Your task to perform on an android device: Open the calendar app, open the side menu, and click the "Day" option Image 0: 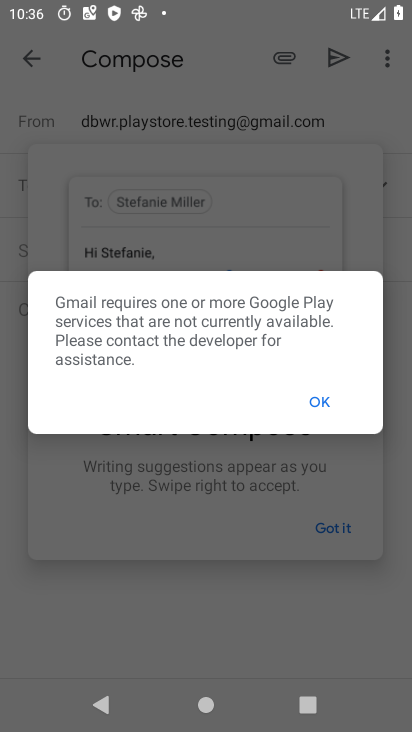
Step 0: press home button
Your task to perform on an android device: Open the calendar app, open the side menu, and click the "Day" option Image 1: 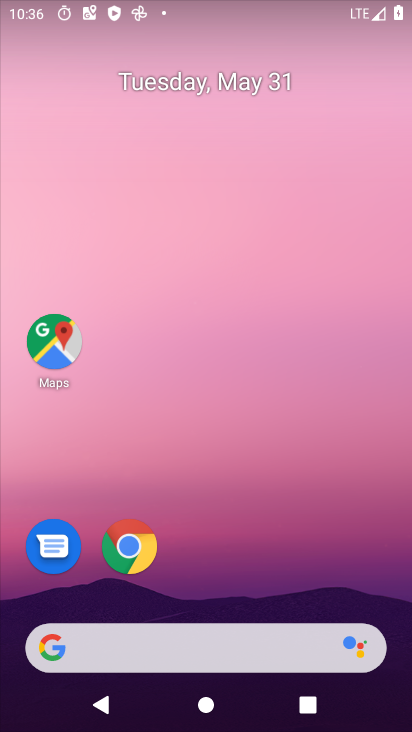
Step 1: drag from (228, 519) to (248, 148)
Your task to perform on an android device: Open the calendar app, open the side menu, and click the "Day" option Image 2: 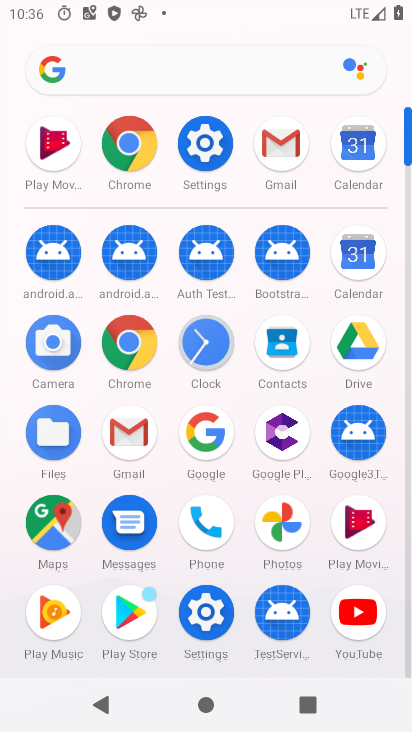
Step 2: click (354, 133)
Your task to perform on an android device: Open the calendar app, open the side menu, and click the "Day" option Image 3: 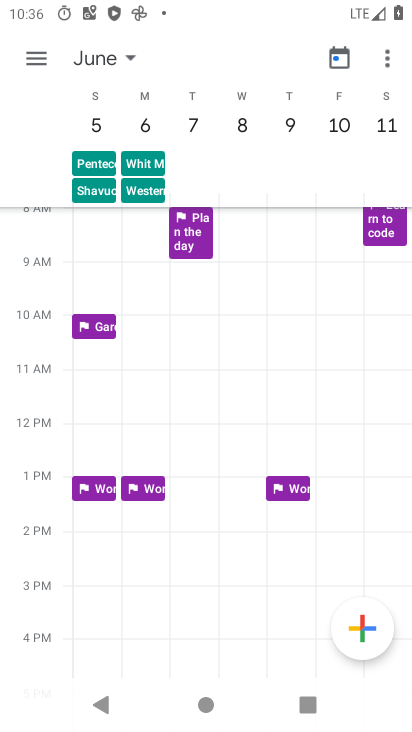
Step 3: click (41, 59)
Your task to perform on an android device: Open the calendar app, open the side menu, and click the "Day" option Image 4: 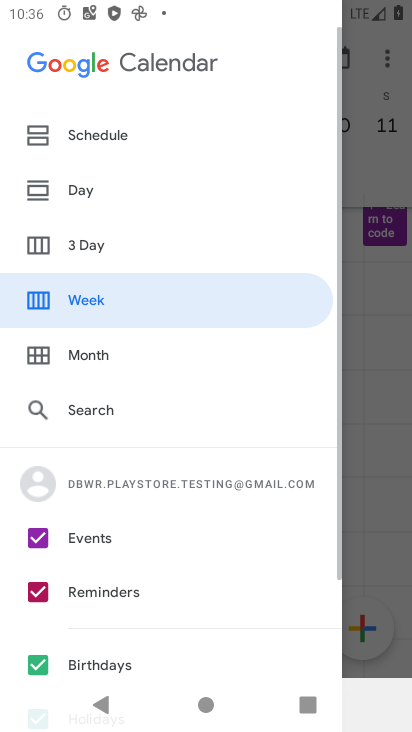
Step 4: click (96, 189)
Your task to perform on an android device: Open the calendar app, open the side menu, and click the "Day" option Image 5: 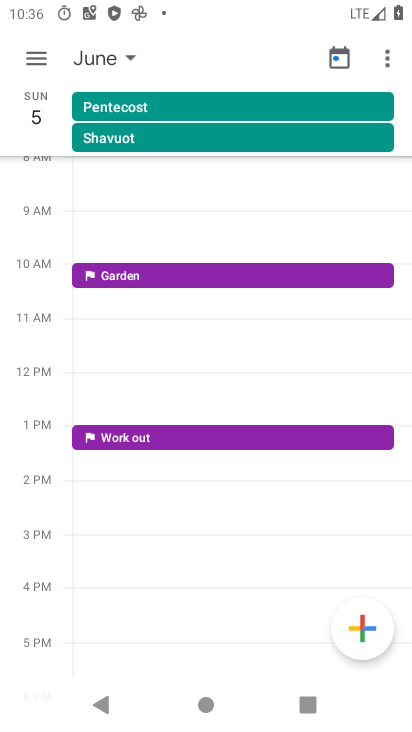
Step 5: task complete